Your task to perform on an android device: View the shopping cart on costco. Search for "acer nitro" on costco, select the first entry, add it to the cart, then select checkout. Image 0: 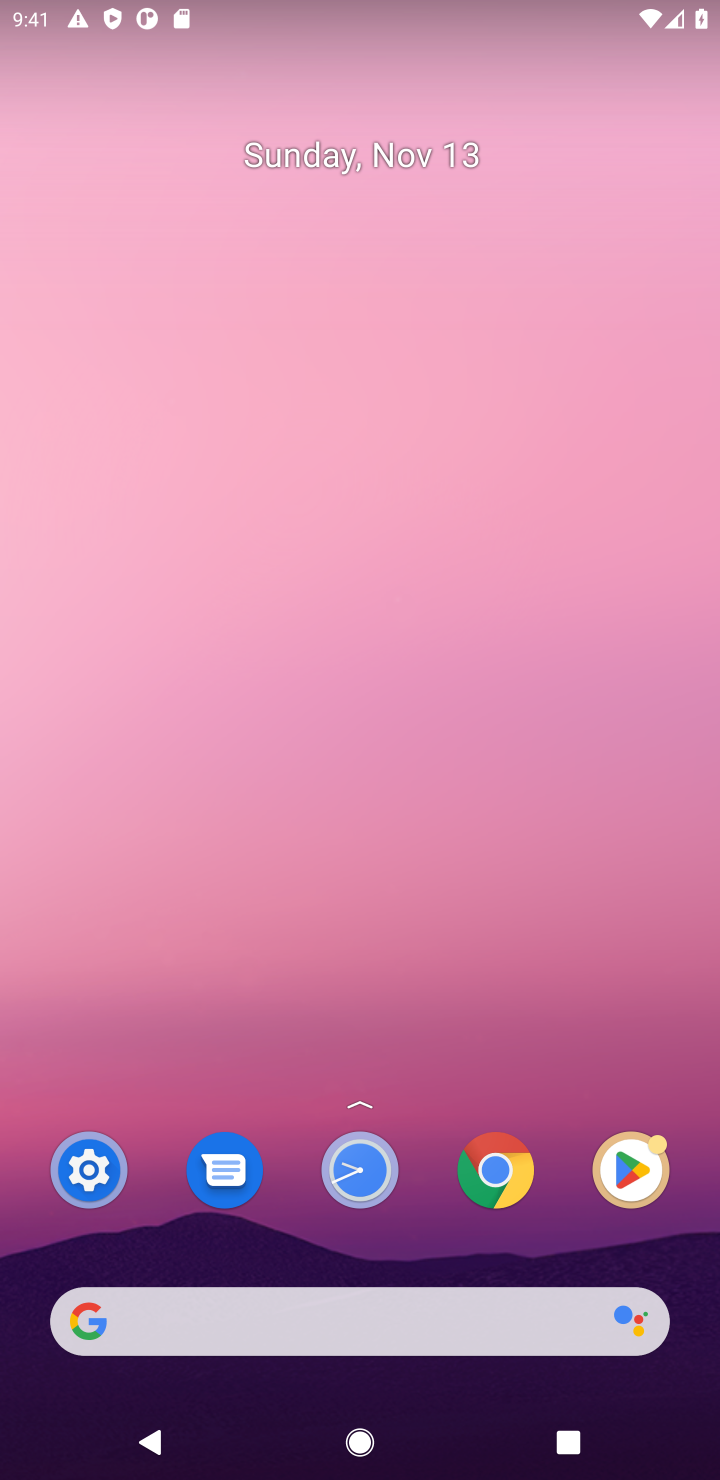
Step 0: click (447, 1299)
Your task to perform on an android device: View the shopping cart on costco. Search for "acer nitro" on costco, select the first entry, add it to the cart, then select checkout. Image 1: 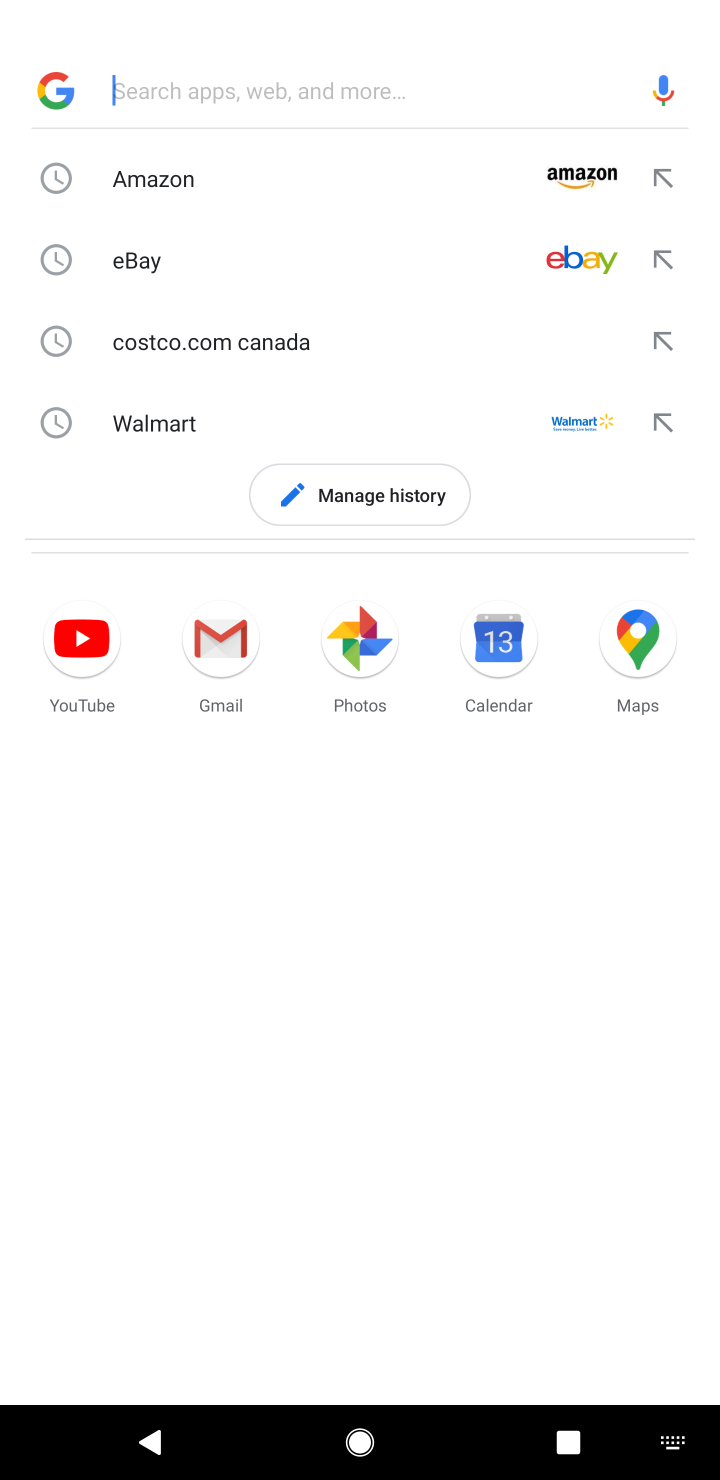
Step 1: type "costco.com"
Your task to perform on an android device: View the shopping cart on costco. Search for "acer nitro" on costco, select the first entry, add it to the cart, then select checkout. Image 2: 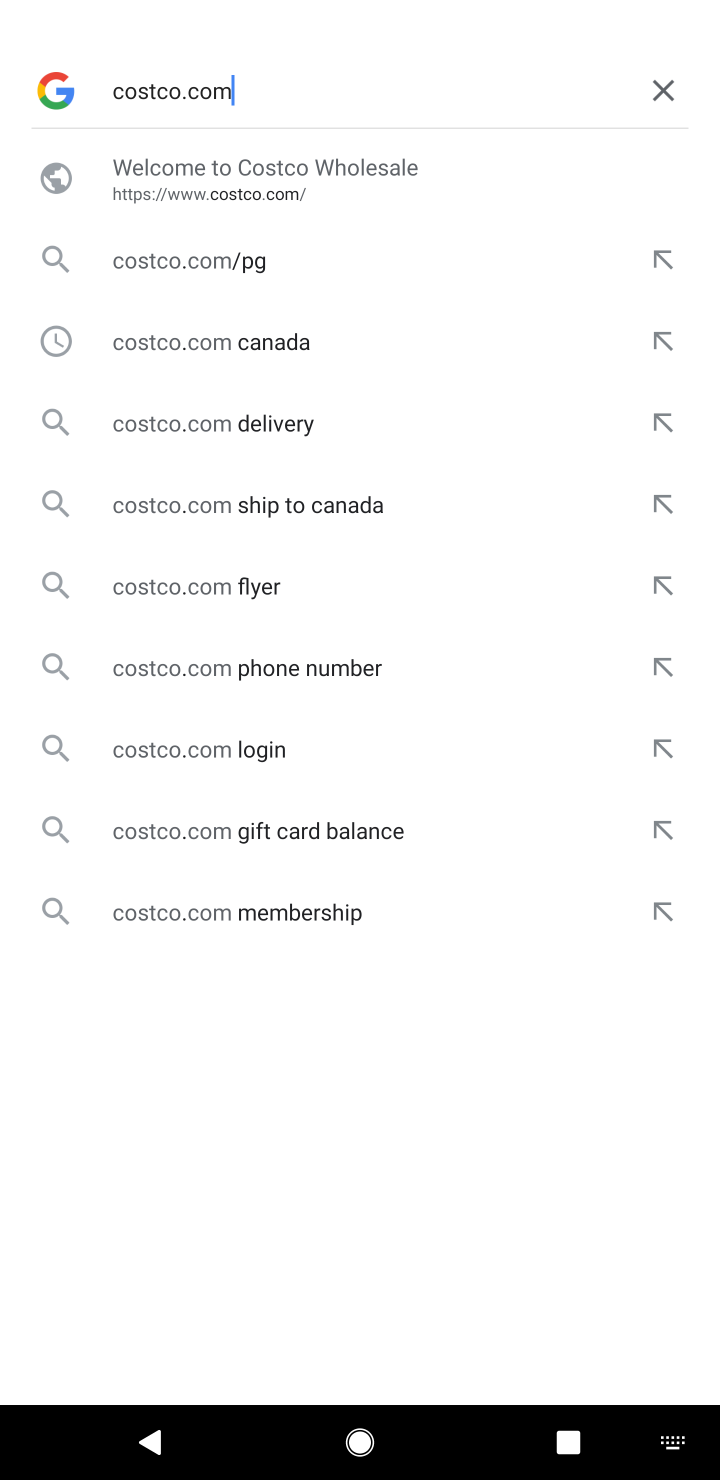
Step 2: click (286, 162)
Your task to perform on an android device: View the shopping cart on costco. Search for "acer nitro" on costco, select the first entry, add it to the cart, then select checkout. Image 3: 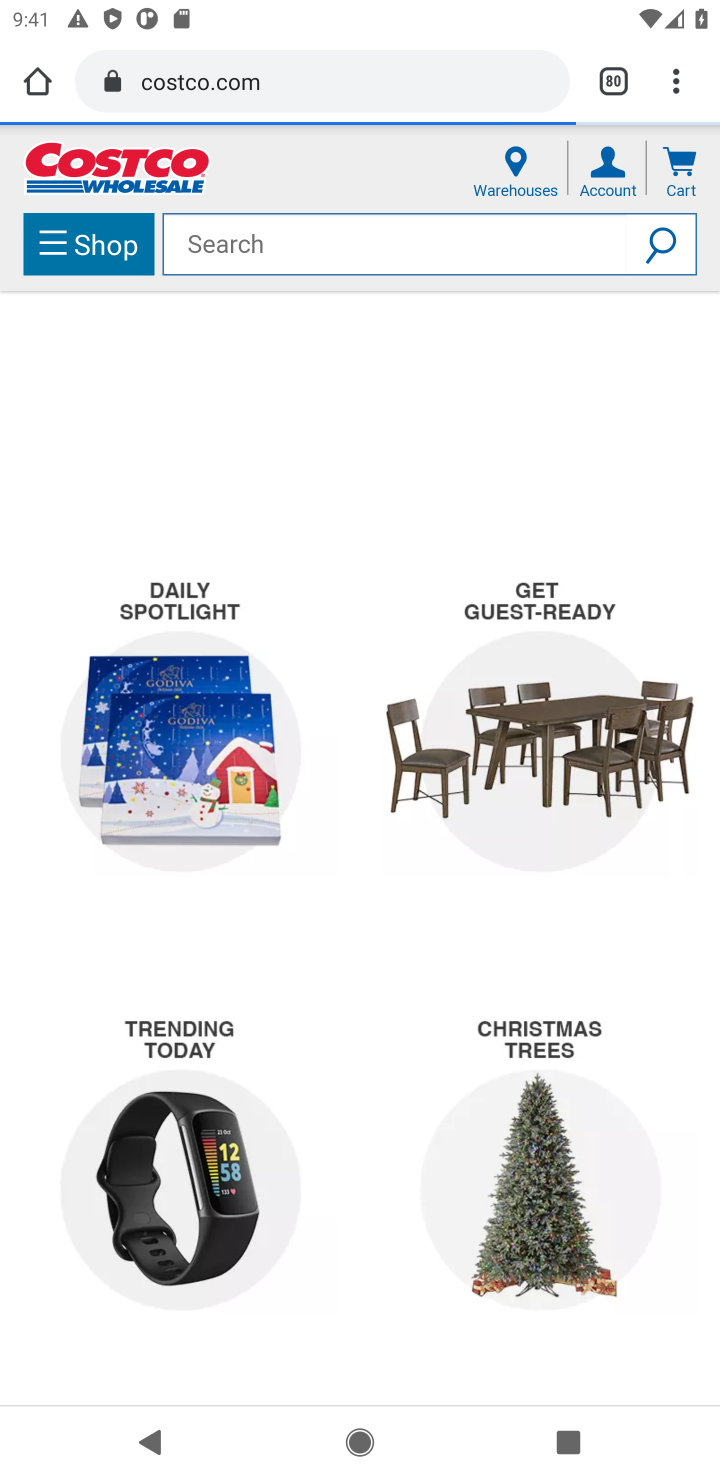
Step 3: click (383, 243)
Your task to perform on an android device: View the shopping cart on costco. Search for "acer nitro" on costco, select the first entry, add it to the cart, then select checkout. Image 4: 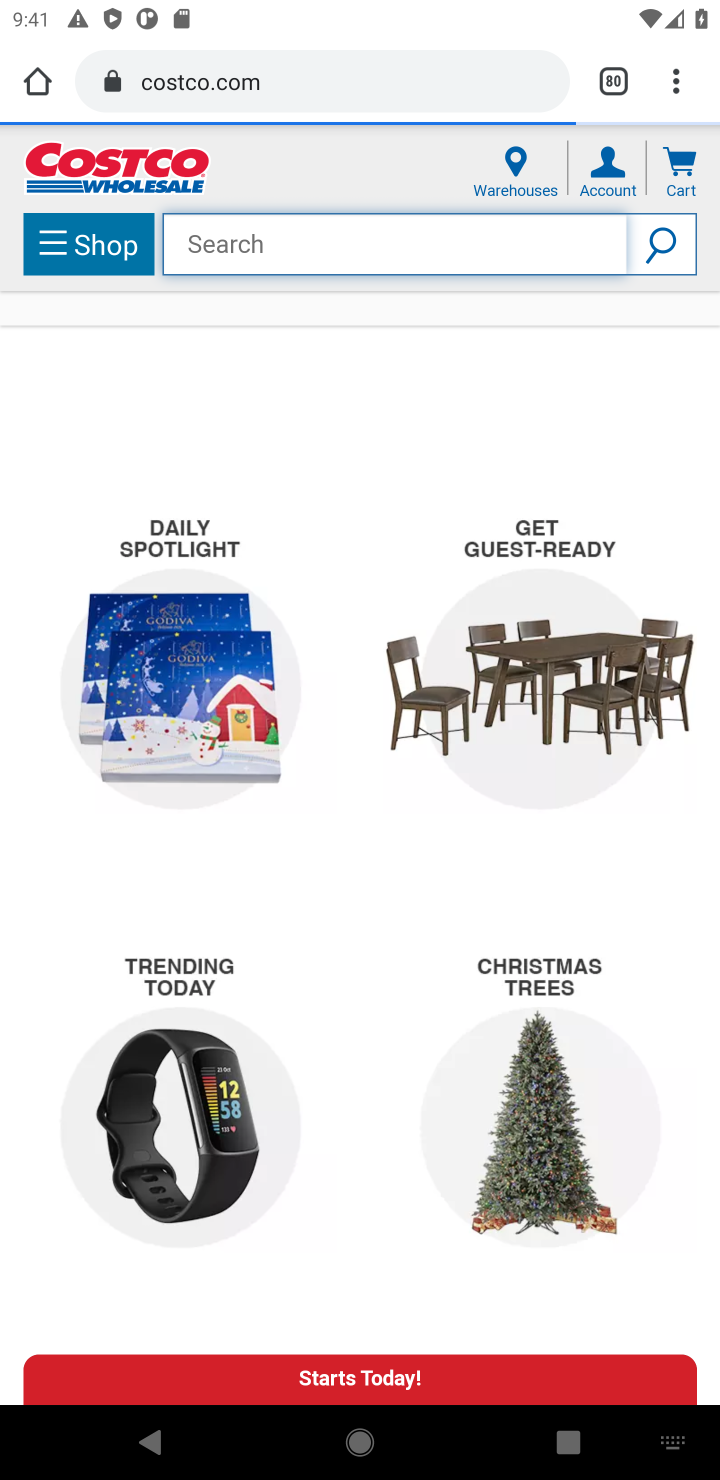
Step 4: task complete